Your task to perform on an android device: Go to accessibility settings Image 0: 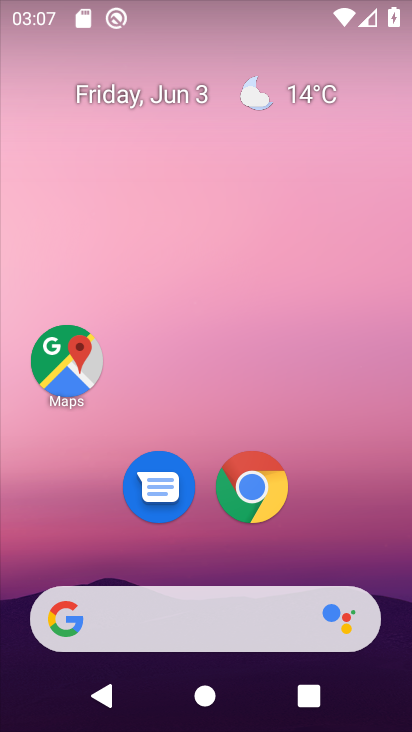
Step 0: drag from (305, 449) to (214, 15)
Your task to perform on an android device: Go to accessibility settings Image 1: 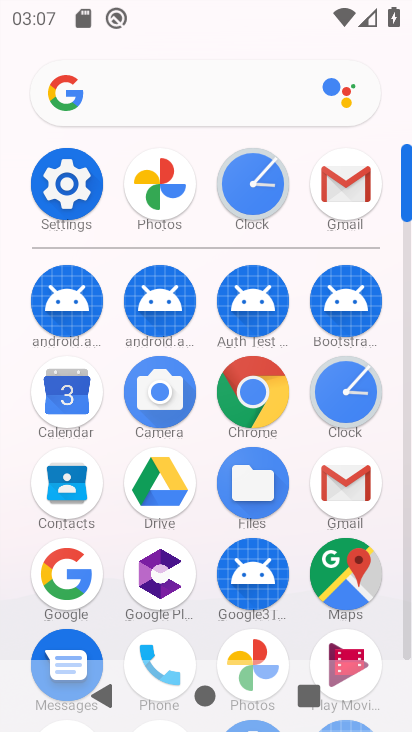
Step 1: click (75, 180)
Your task to perform on an android device: Go to accessibility settings Image 2: 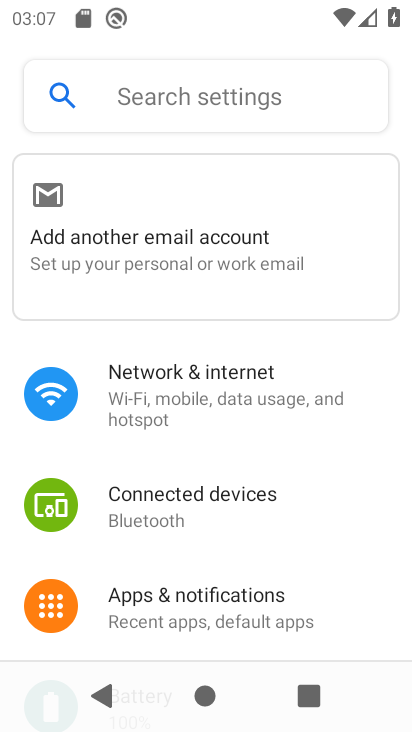
Step 2: drag from (286, 512) to (275, 1)
Your task to perform on an android device: Go to accessibility settings Image 3: 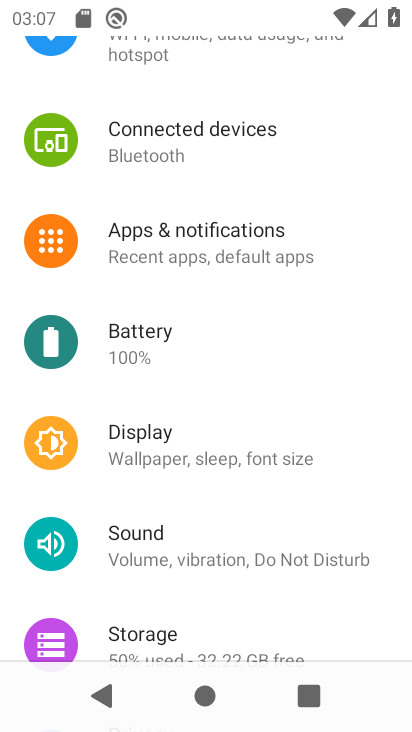
Step 3: drag from (243, 520) to (226, 10)
Your task to perform on an android device: Go to accessibility settings Image 4: 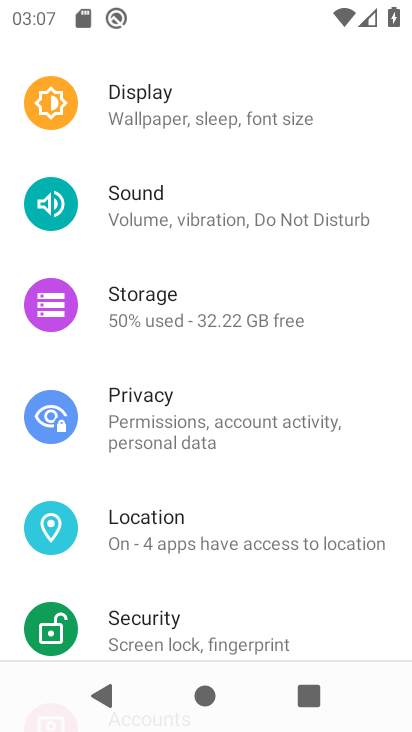
Step 4: drag from (242, 568) to (204, 232)
Your task to perform on an android device: Go to accessibility settings Image 5: 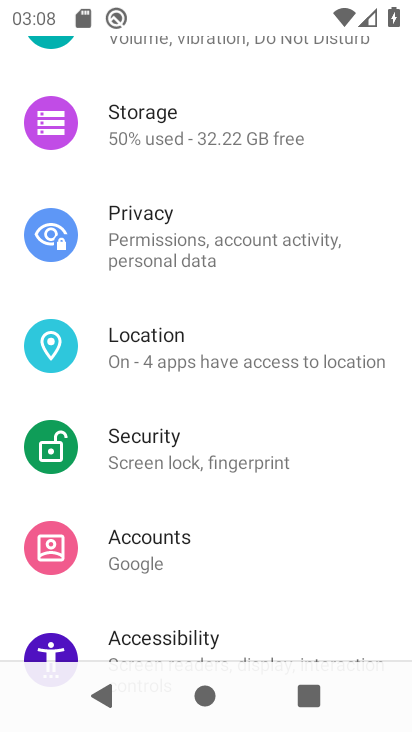
Step 5: click (254, 636)
Your task to perform on an android device: Go to accessibility settings Image 6: 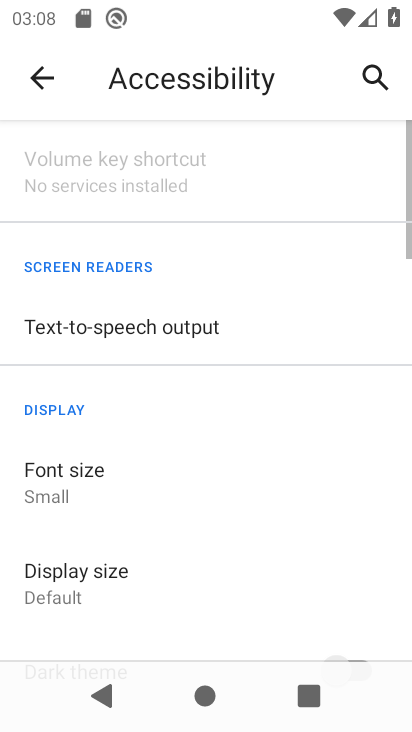
Step 6: task complete